Your task to perform on an android device: clear history in the chrome app Image 0: 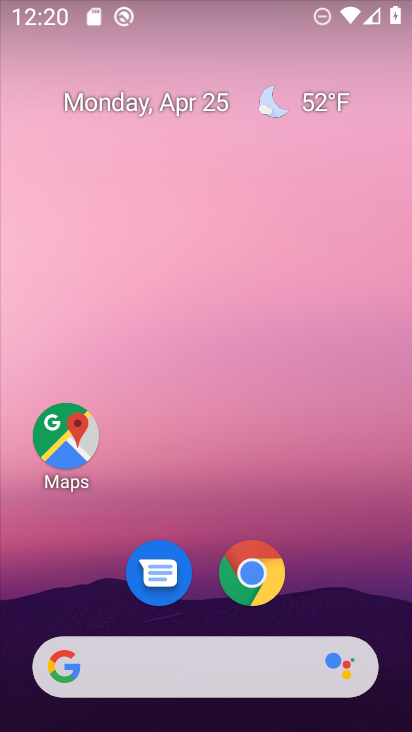
Step 0: click (251, 576)
Your task to perform on an android device: clear history in the chrome app Image 1: 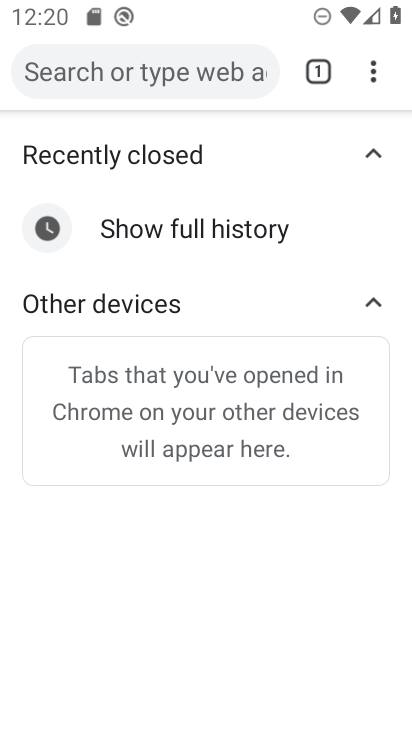
Step 1: task complete